Your task to perform on an android device: Open internet settings Image 0: 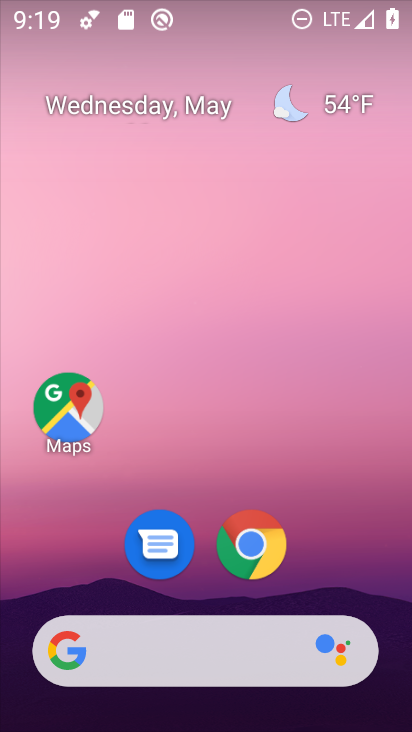
Step 0: drag from (217, 601) to (189, 219)
Your task to perform on an android device: Open internet settings Image 1: 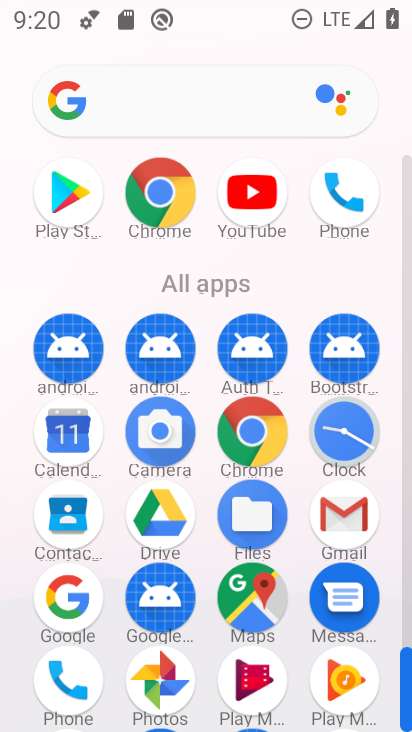
Step 1: drag from (302, 614) to (304, 167)
Your task to perform on an android device: Open internet settings Image 2: 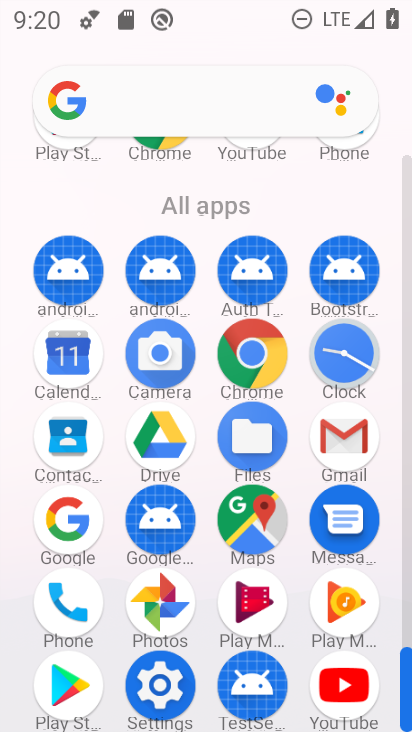
Step 2: click (147, 679)
Your task to perform on an android device: Open internet settings Image 3: 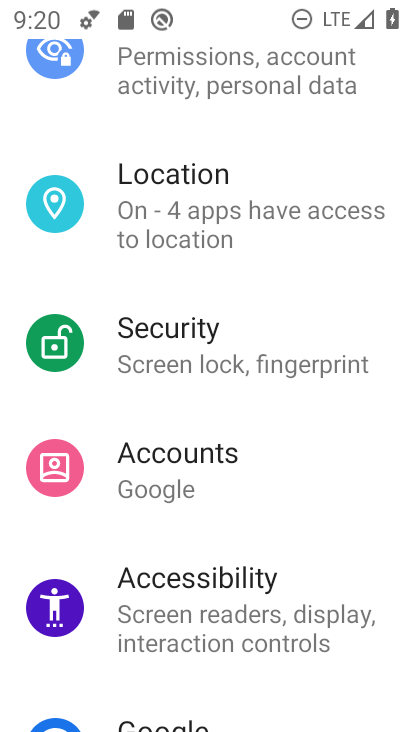
Step 3: drag from (205, 106) to (193, 574)
Your task to perform on an android device: Open internet settings Image 4: 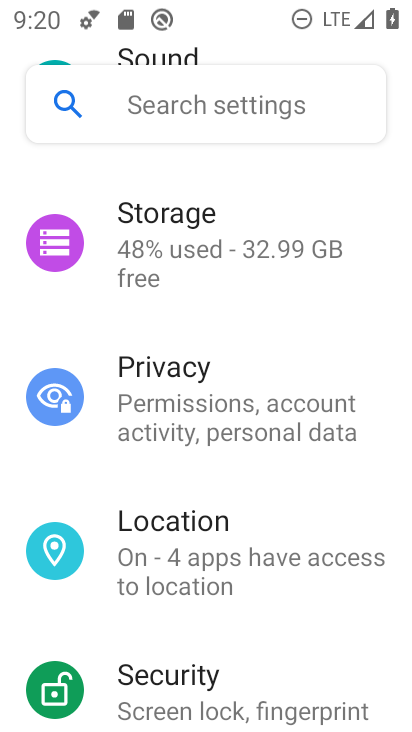
Step 4: drag from (273, 249) to (277, 652)
Your task to perform on an android device: Open internet settings Image 5: 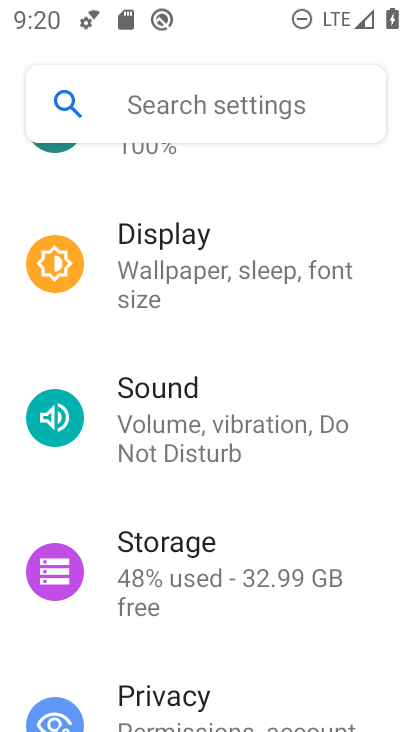
Step 5: drag from (202, 290) to (129, 727)
Your task to perform on an android device: Open internet settings Image 6: 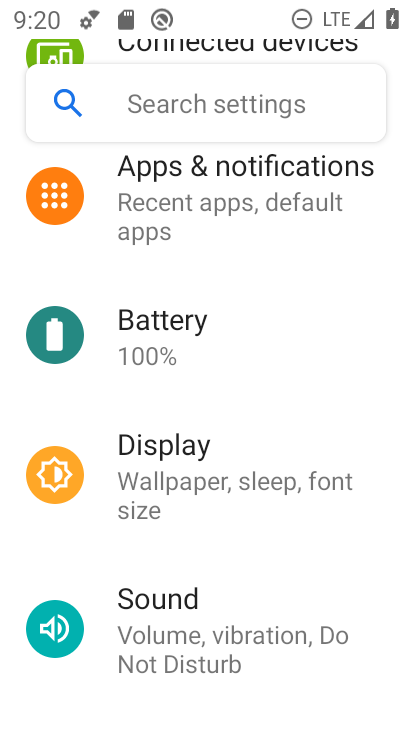
Step 6: drag from (169, 220) to (177, 570)
Your task to perform on an android device: Open internet settings Image 7: 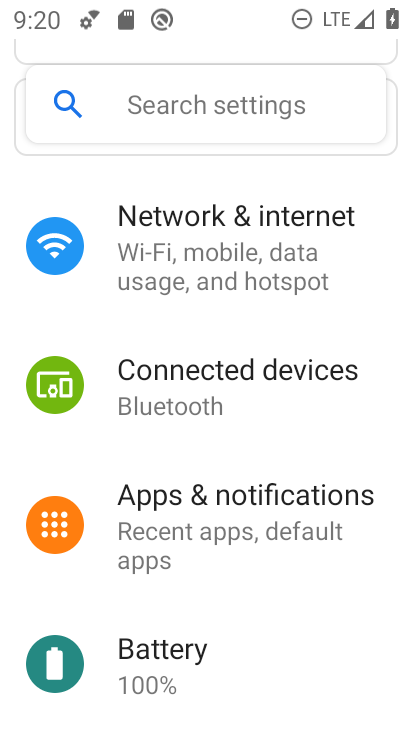
Step 7: click (197, 207)
Your task to perform on an android device: Open internet settings Image 8: 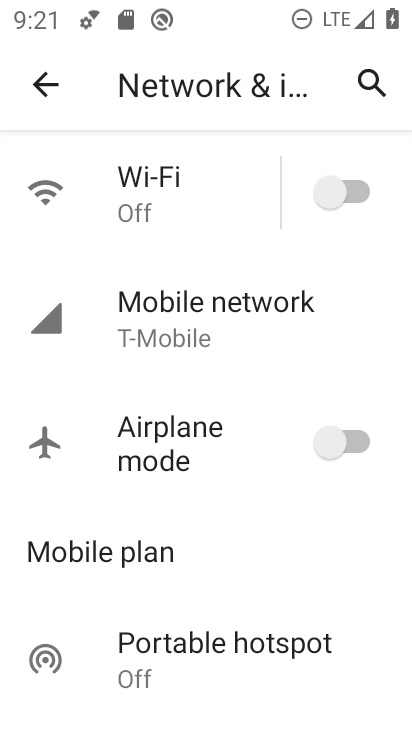
Step 8: task complete